Your task to perform on an android device: open app "Instagram" Image 0: 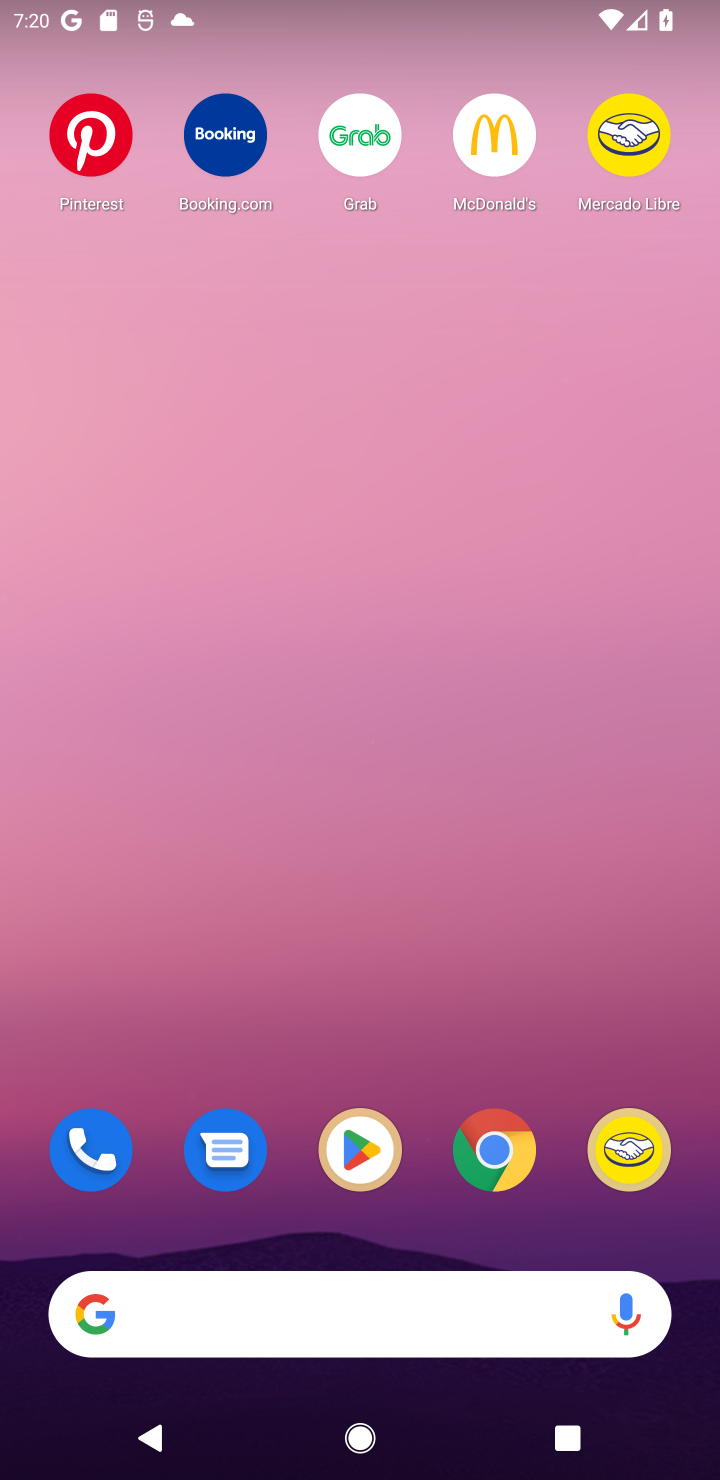
Step 0: click (363, 1164)
Your task to perform on an android device: open app "Instagram" Image 1: 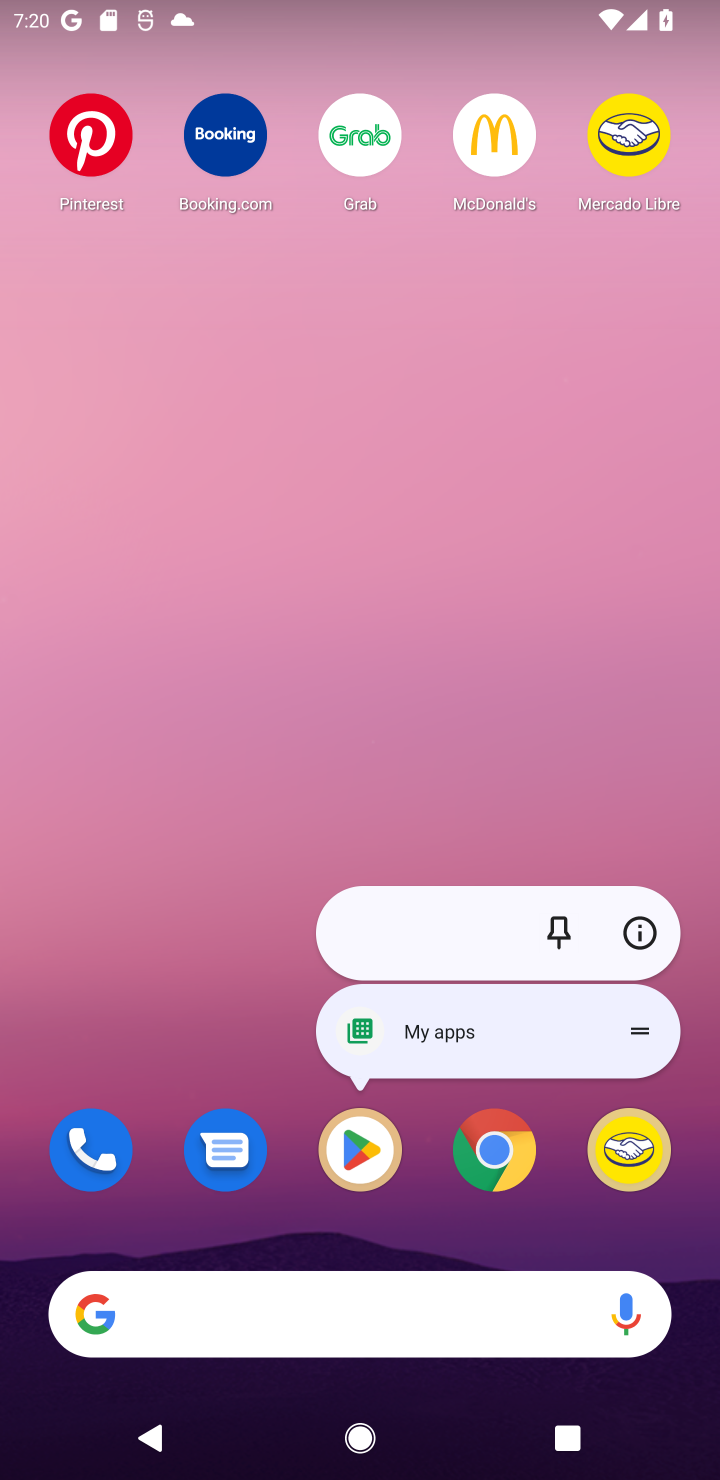
Step 1: click (363, 1164)
Your task to perform on an android device: open app "Instagram" Image 2: 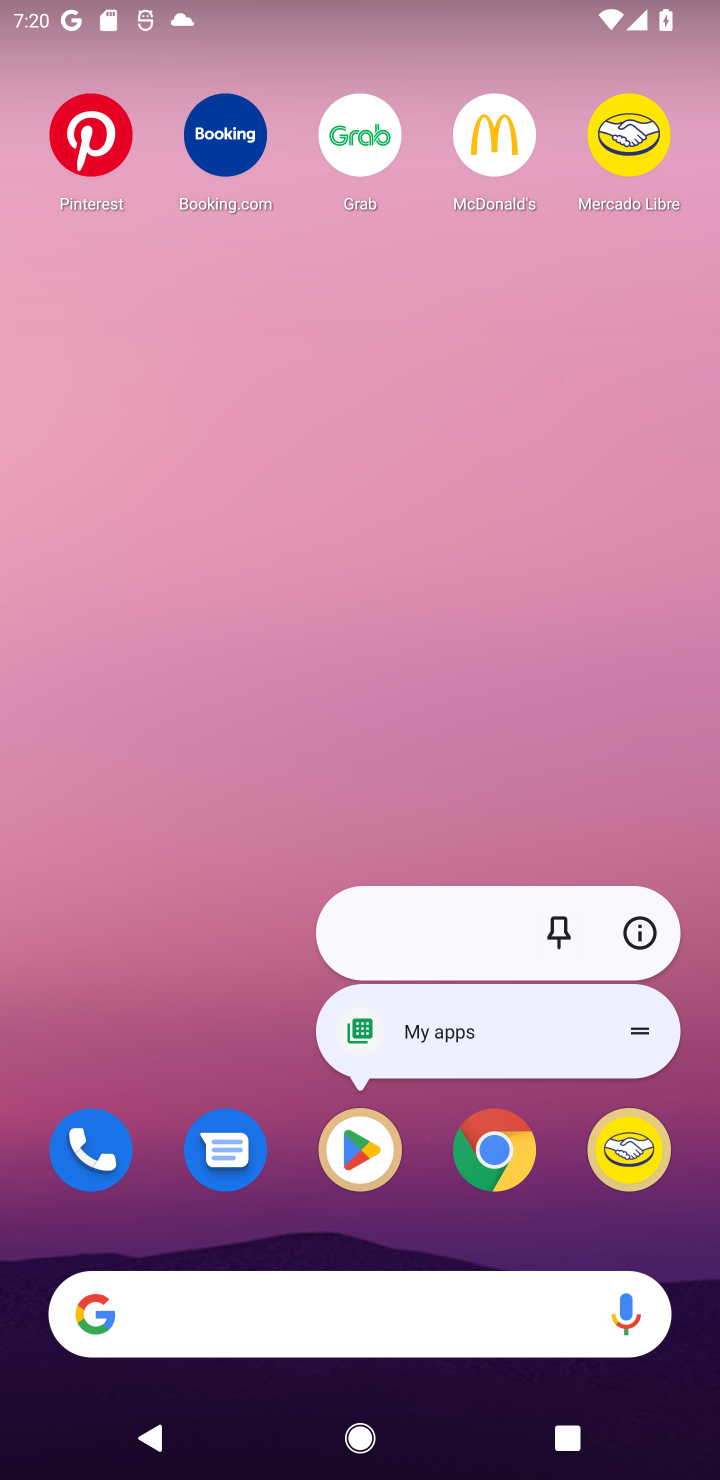
Step 2: click (363, 1164)
Your task to perform on an android device: open app "Instagram" Image 3: 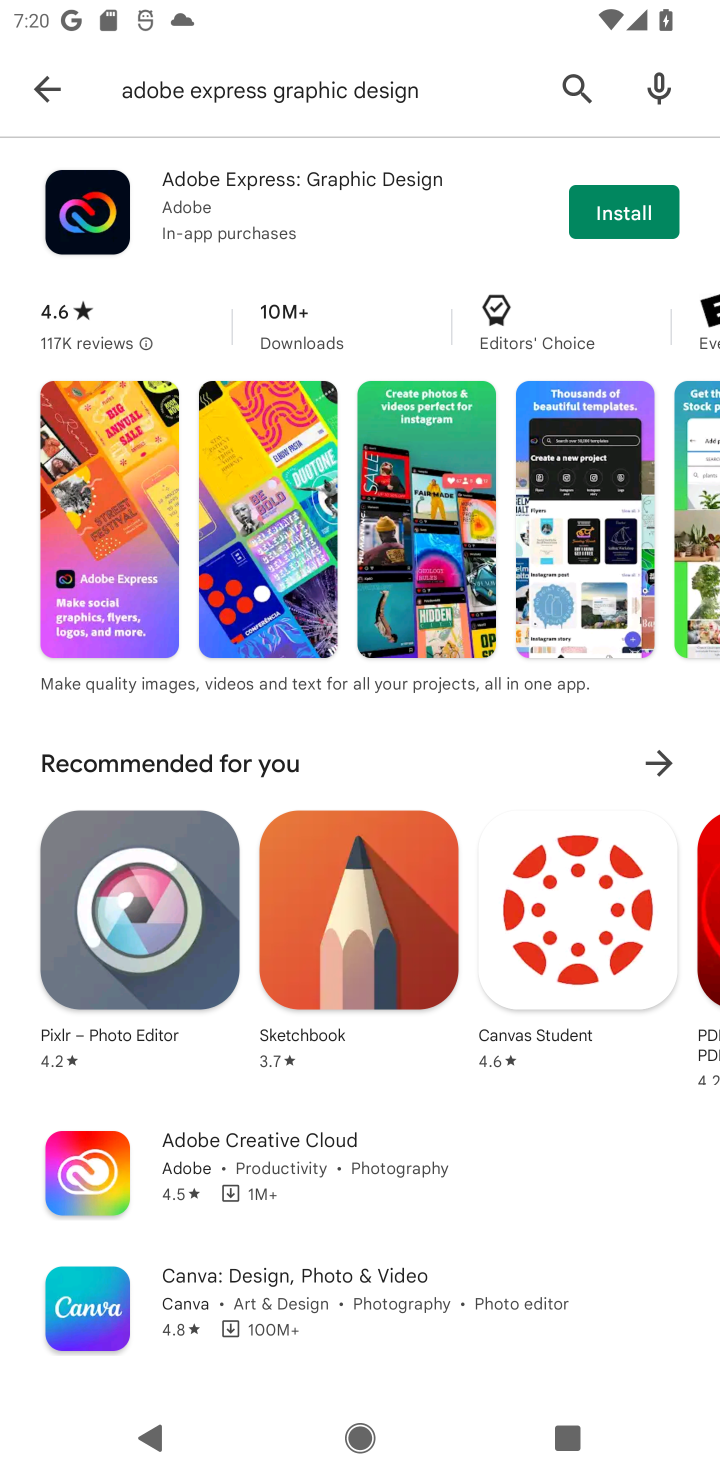
Step 3: click (36, 90)
Your task to perform on an android device: open app "Instagram" Image 4: 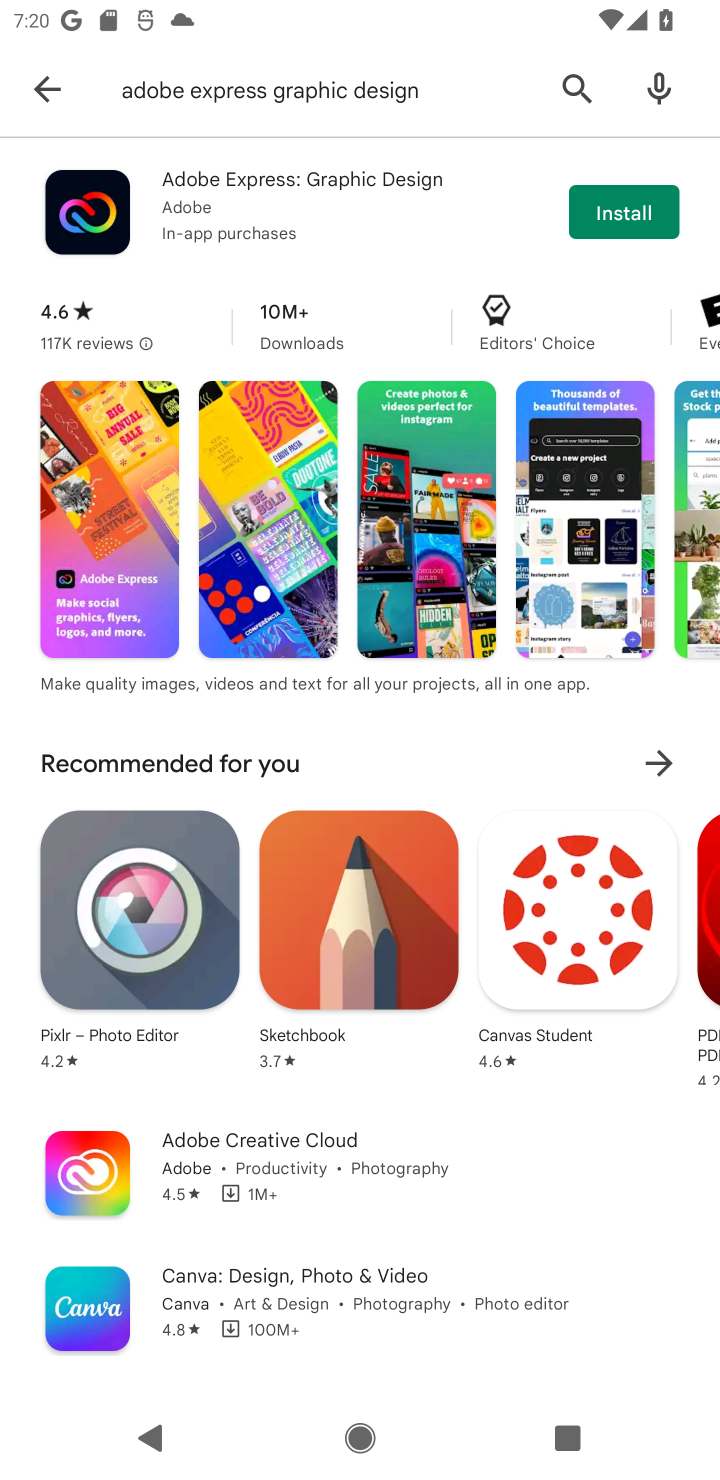
Step 4: click (31, 63)
Your task to perform on an android device: open app "Instagram" Image 5: 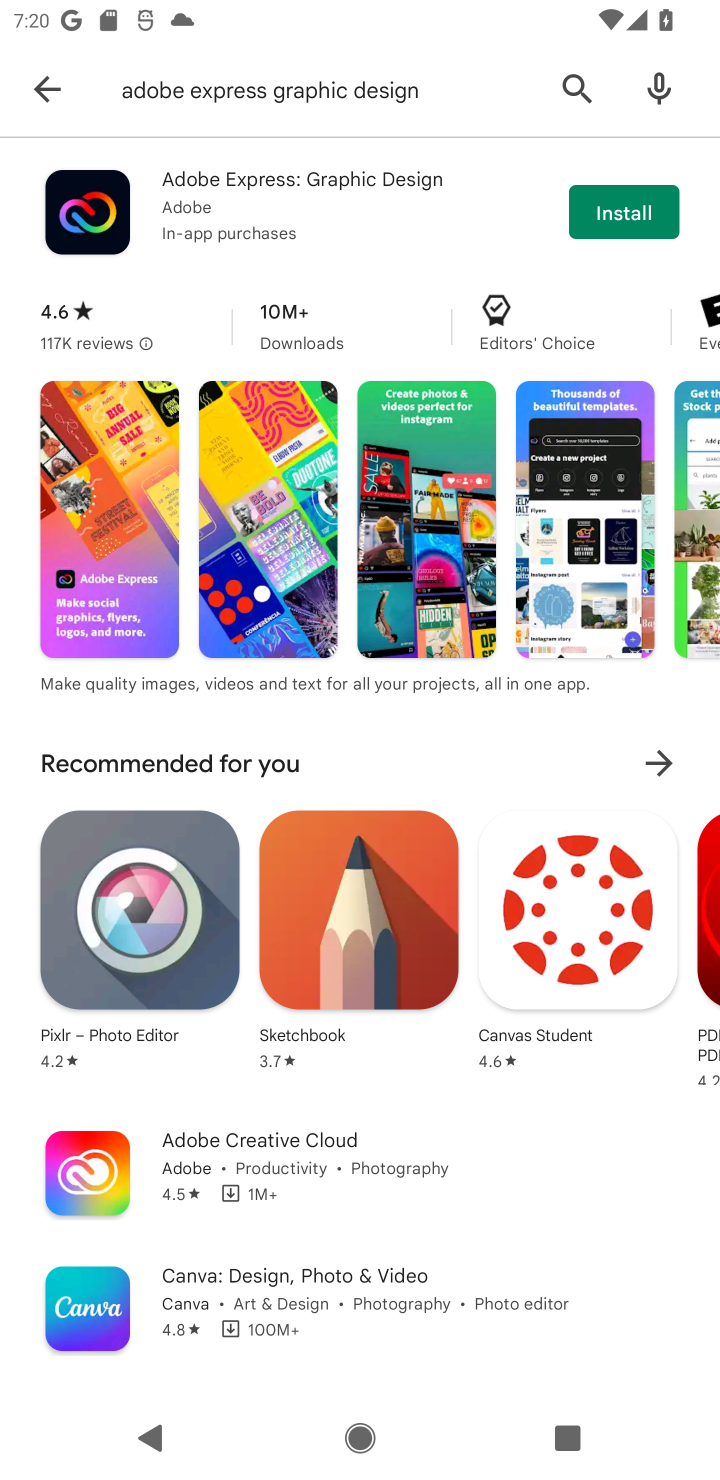
Step 5: click (31, 63)
Your task to perform on an android device: open app "Instagram" Image 6: 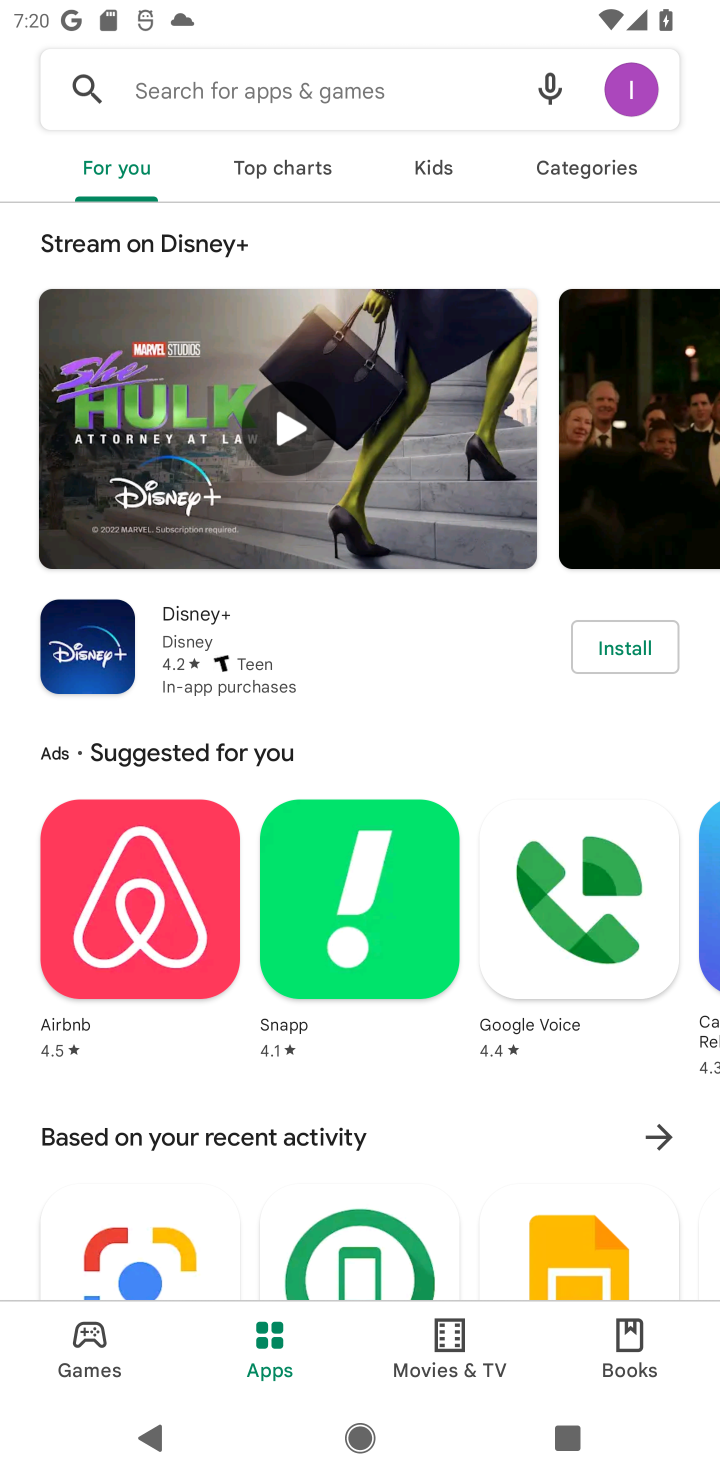
Step 6: click (324, 77)
Your task to perform on an android device: open app "Instagram" Image 7: 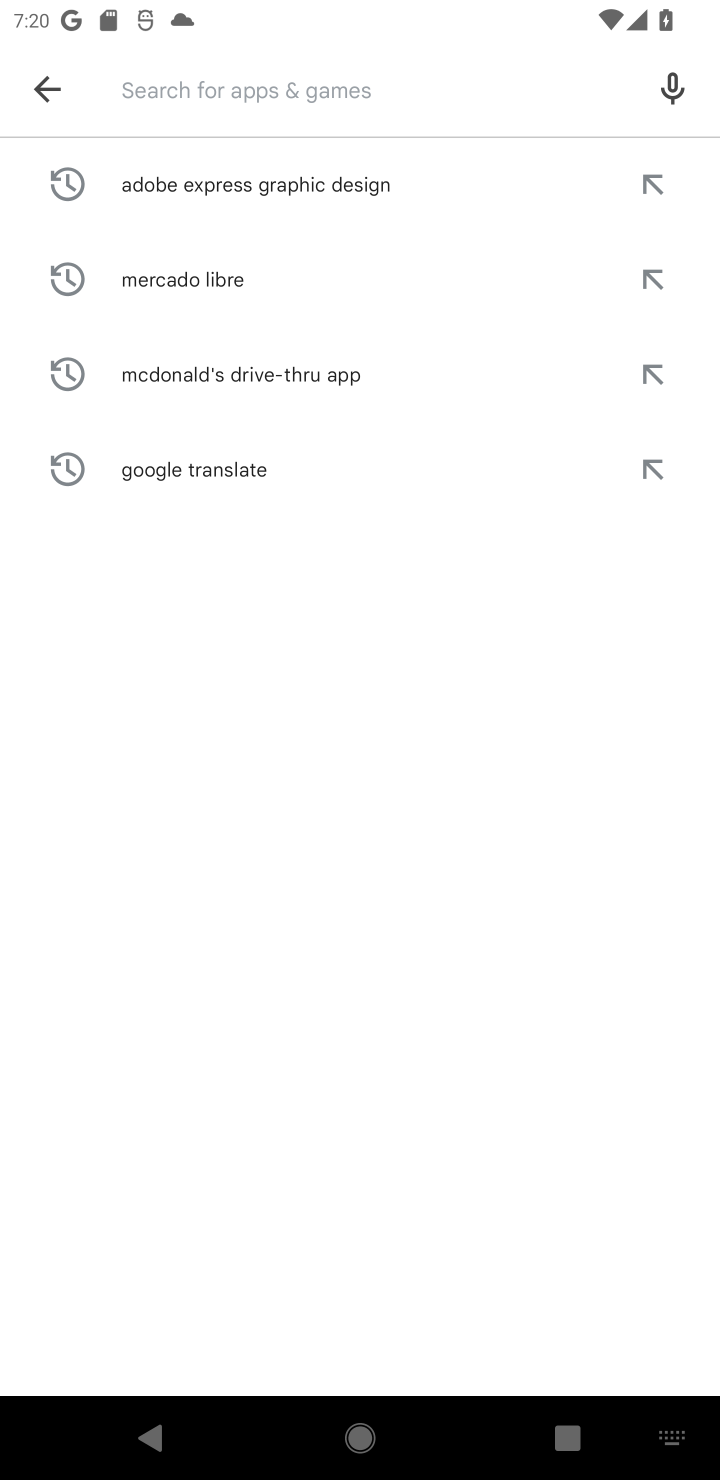
Step 7: type "Instagram"
Your task to perform on an android device: open app "Instagram" Image 8: 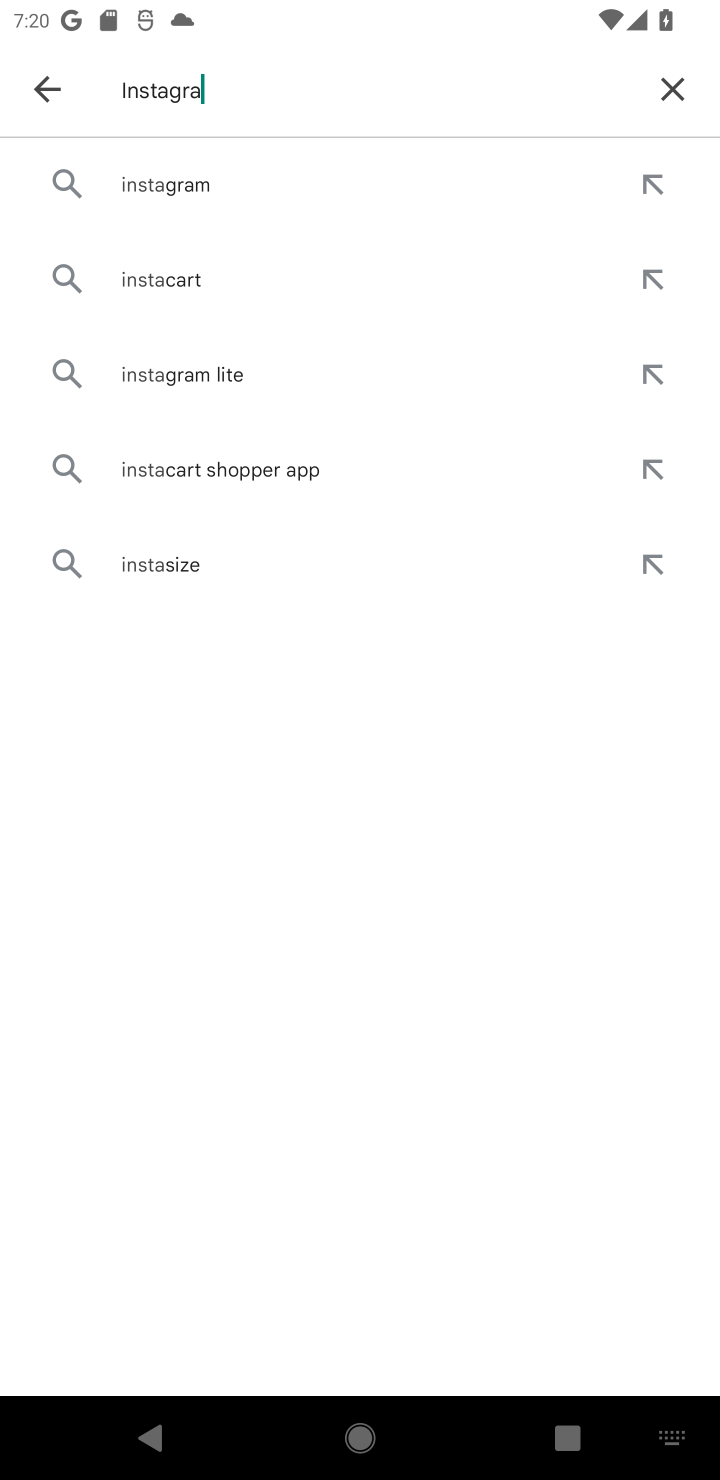
Step 8: type ""
Your task to perform on an android device: open app "Instagram" Image 9: 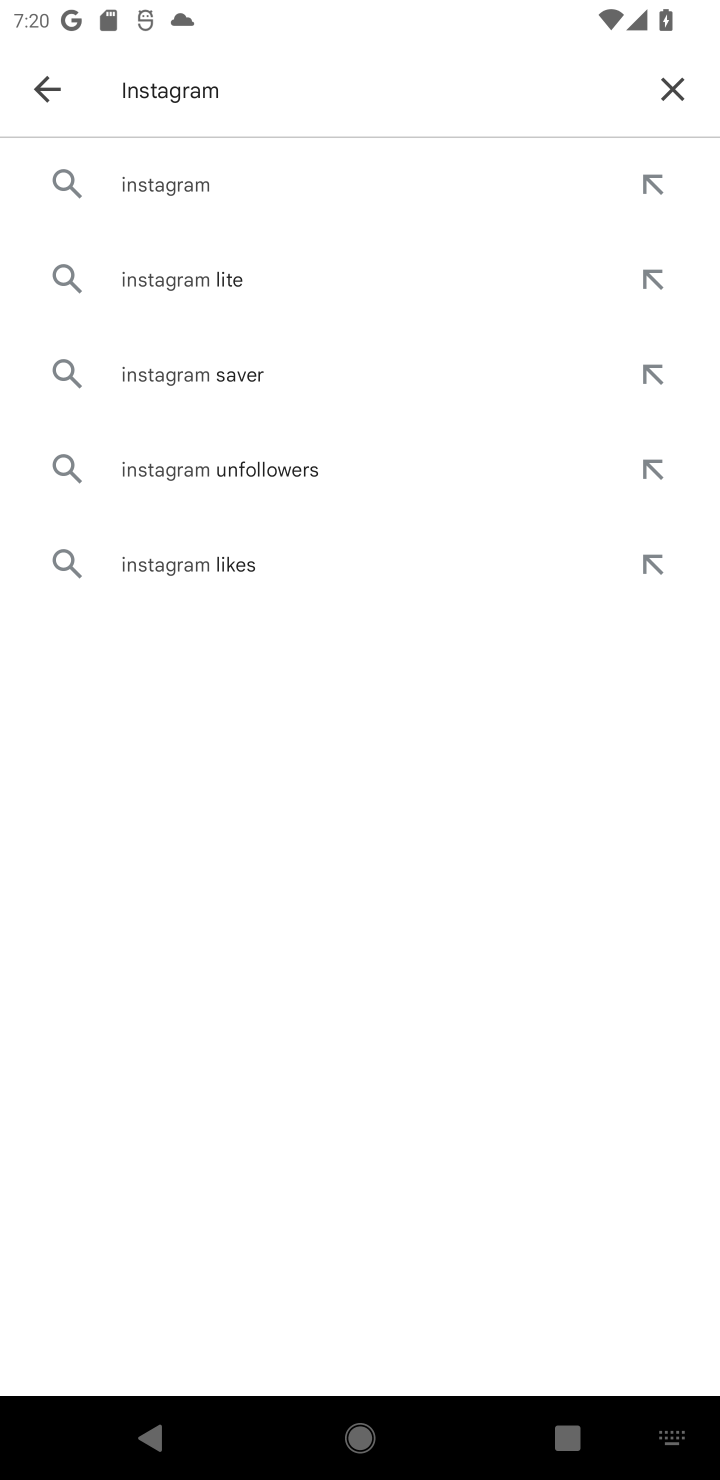
Step 9: click (155, 202)
Your task to perform on an android device: open app "Instagram" Image 10: 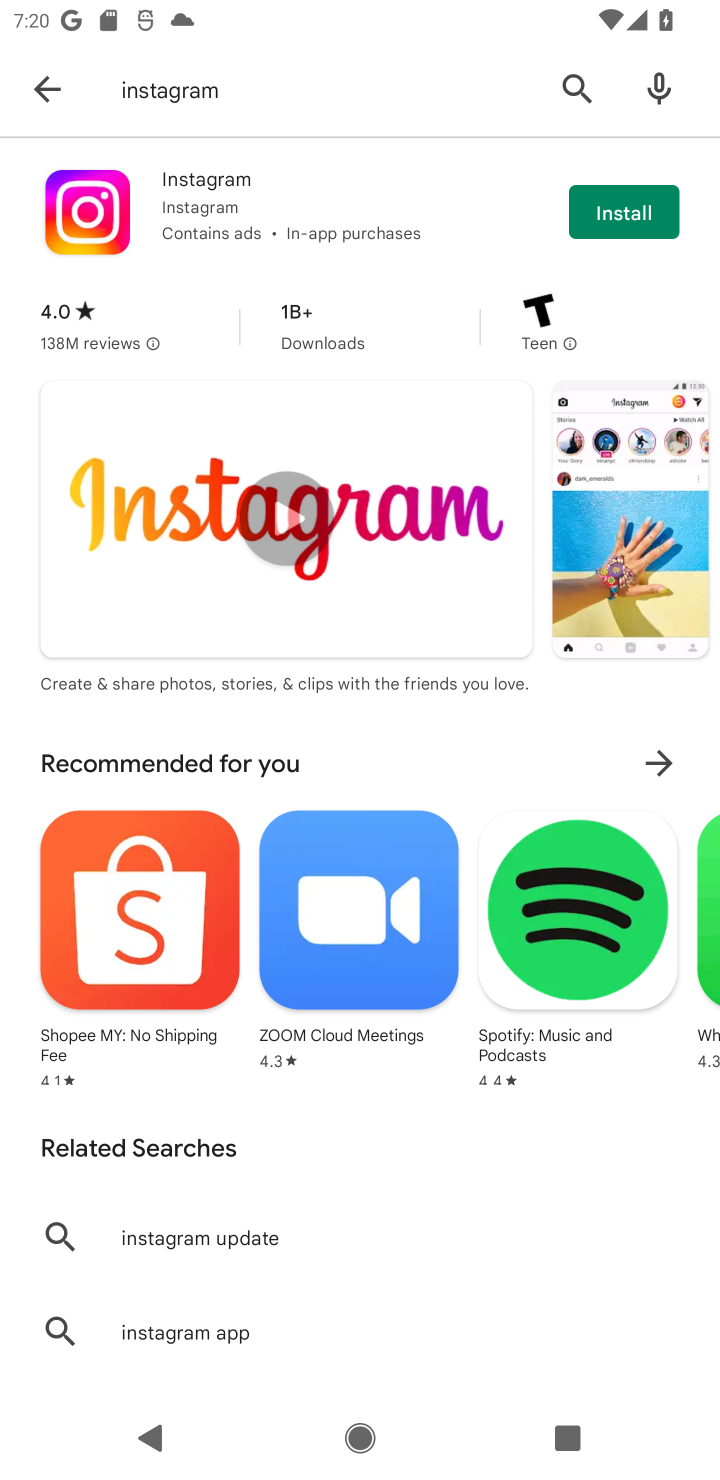
Step 10: click (200, 242)
Your task to perform on an android device: open app "Instagram" Image 11: 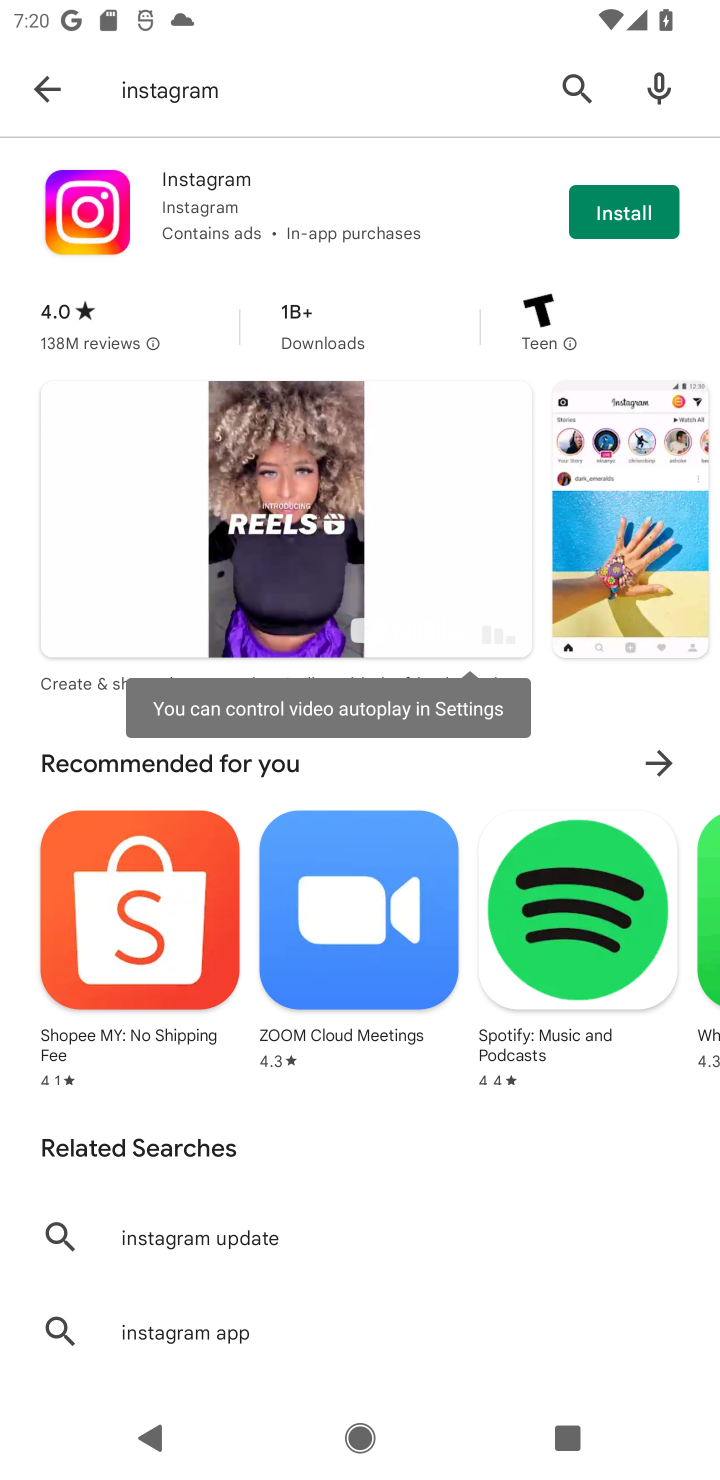
Step 11: task complete